Your task to perform on an android device: set the timer Image 0: 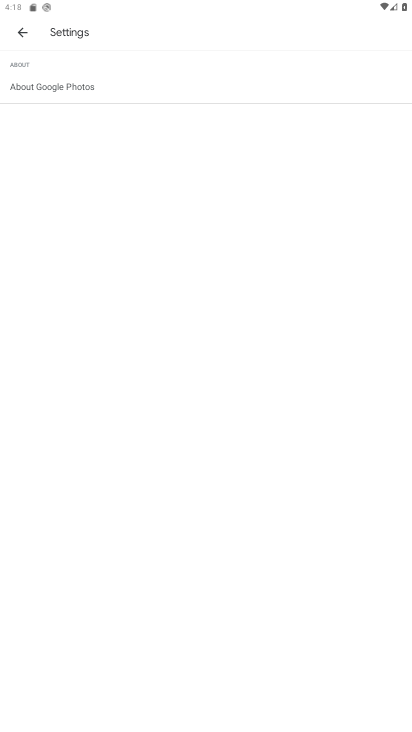
Step 0: press home button
Your task to perform on an android device: set the timer Image 1: 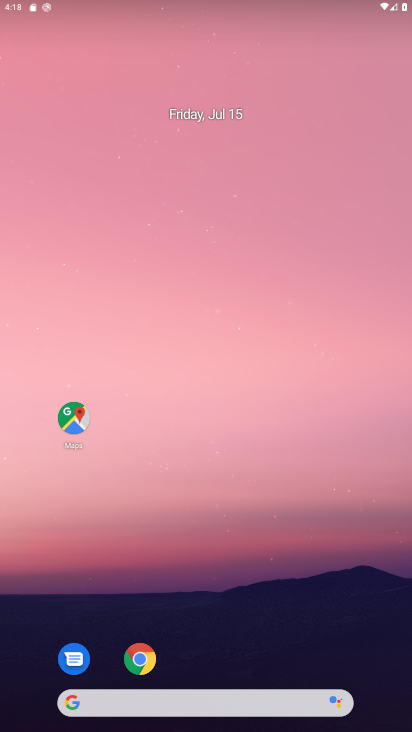
Step 1: drag from (246, 633) to (323, 25)
Your task to perform on an android device: set the timer Image 2: 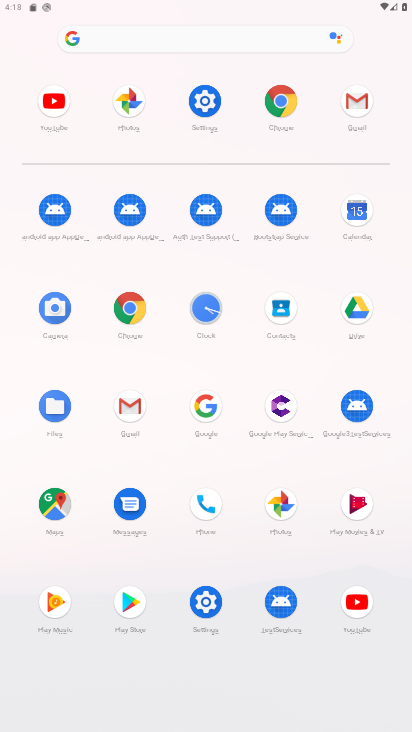
Step 2: click (199, 303)
Your task to perform on an android device: set the timer Image 3: 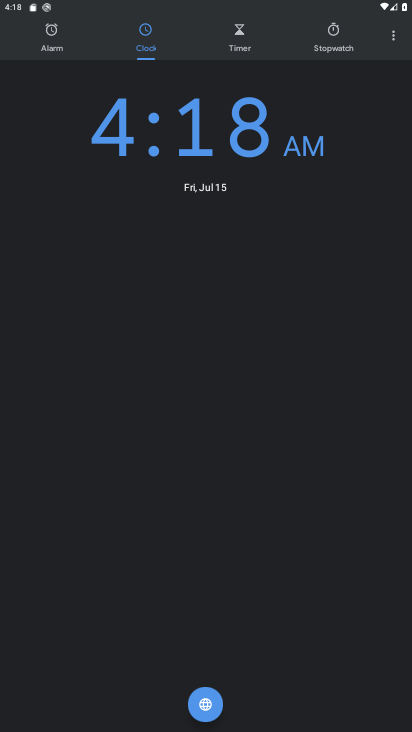
Step 3: click (234, 28)
Your task to perform on an android device: set the timer Image 4: 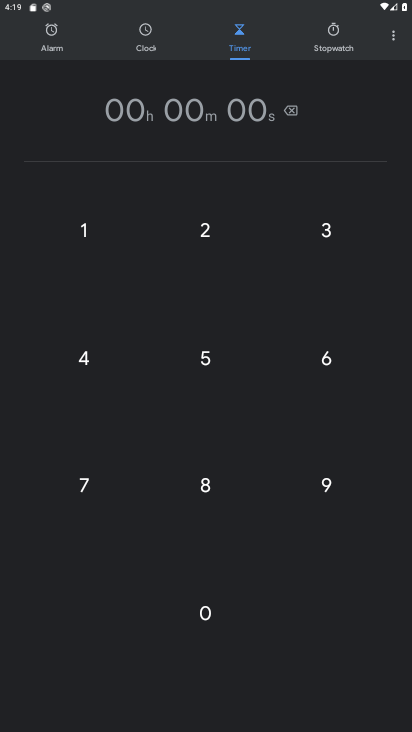
Step 4: click (208, 487)
Your task to perform on an android device: set the timer Image 5: 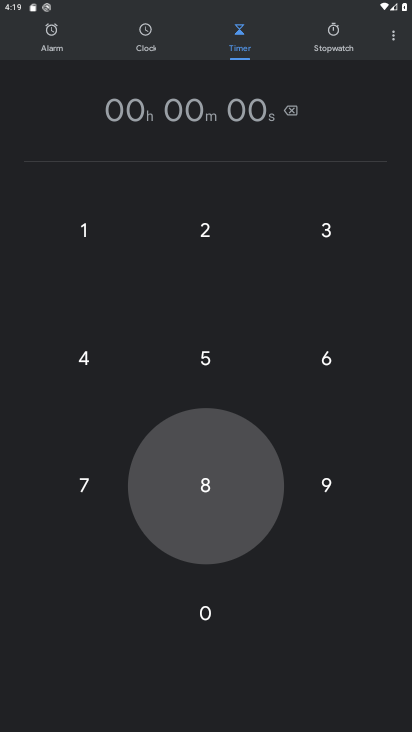
Step 5: click (208, 350)
Your task to perform on an android device: set the timer Image 6: 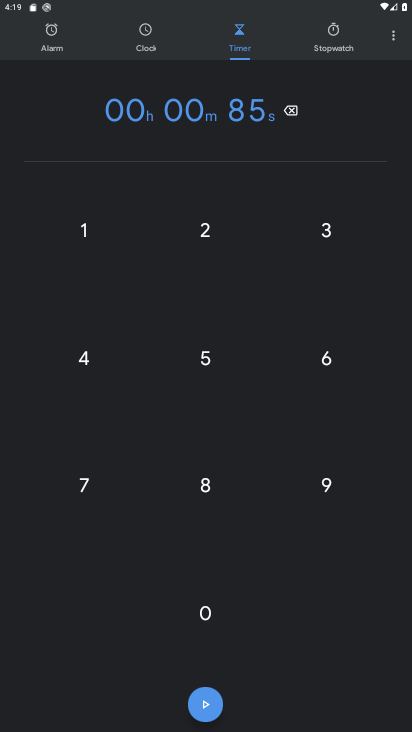
Step 6: click (210, 242)
Your task to perform on an android device: set the timer Image 7: 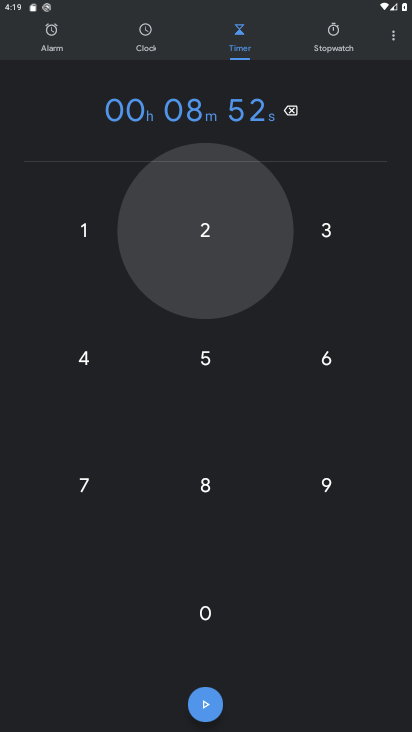
Step 7: click (353, 226)
Your task to perform on an android device: set the timer Image 8: 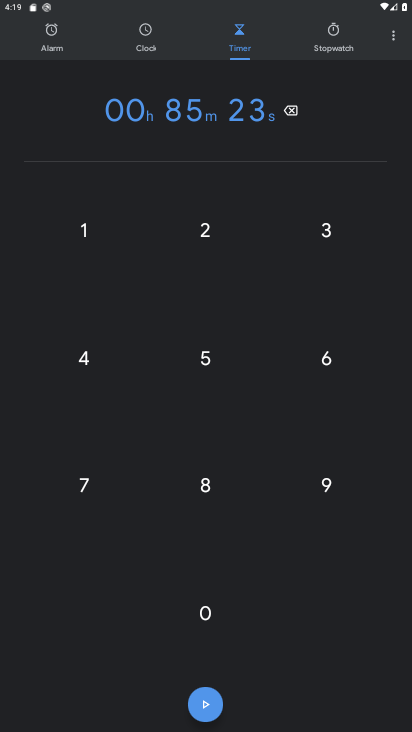
Step 8: click (92, 226)
Your task to perform on an android device: set the timer Image 9: 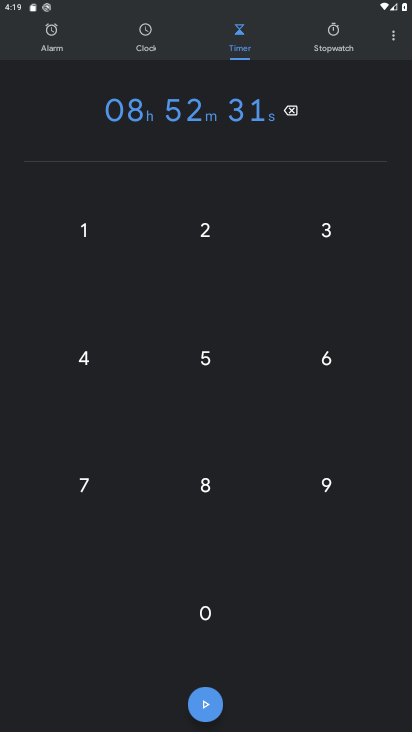
Step 9: click (209, 221)
Your task to perform on an android device: set the timer Image 10: 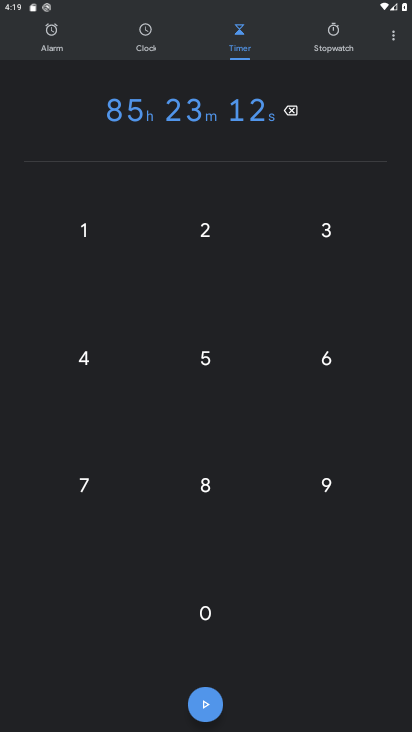
Step 10: click (216, 698)
Your task to perform on an android device: set the timer Image 11: 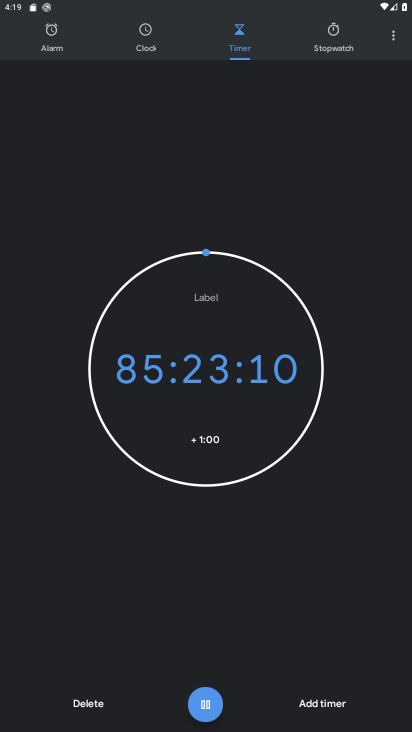
Step 11: task complete